Your task to perform on an android device: Clear all items from cart on bestbuy.com. Search for "logitech g903" on bestbuy.com, select the first entry, and add it to the cart. Image 0: 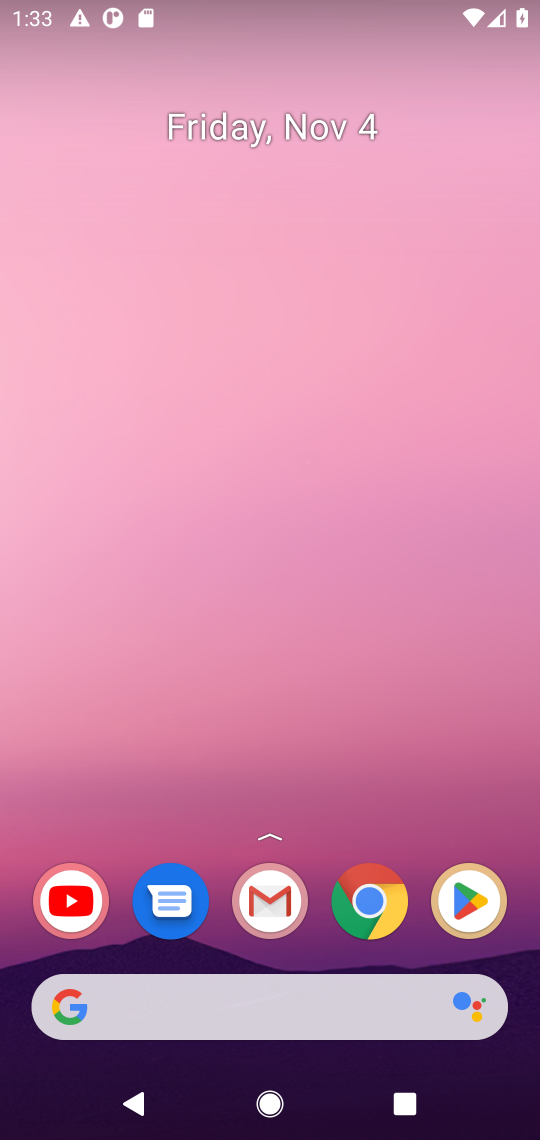
Step 0: click (370, 898)
Your task to perform on an android device: Clear all items from cart on bestbuy.com. Search for "logitech g903" on bestbuy.com, select the first entry, and add it to the cart. Image 1: 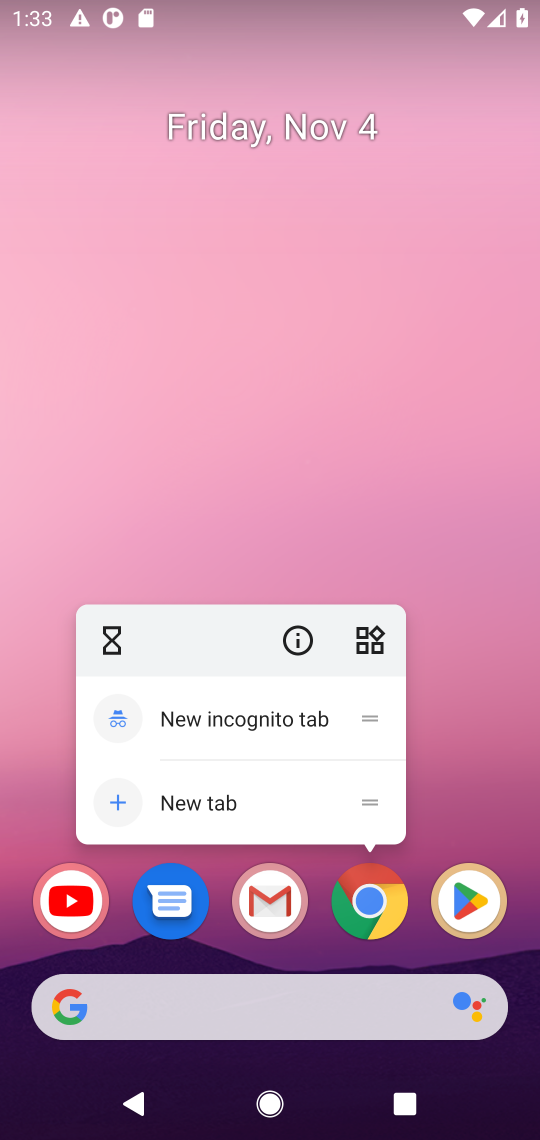
Step 1: click (370, 898)
Your task to perform on an android device: Clear all items from cart on bestbuy.com. Search for "logitech g903" on bestbuy.com, select the first entry, and add it to the cart. Image 2: 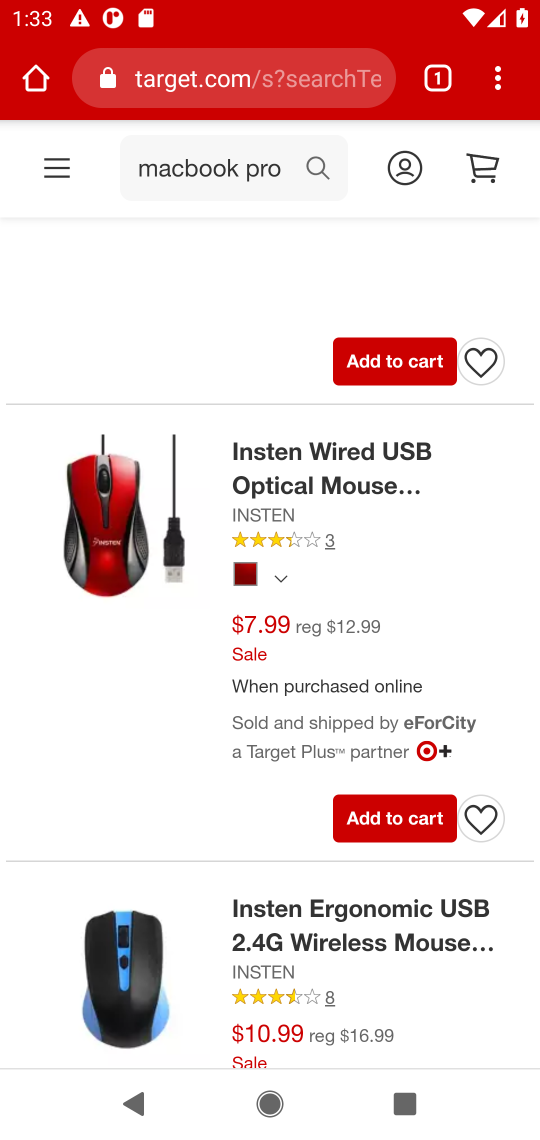
Step 2: click (287, 83)
Your task to perform on an android device: Clear all items from cart on bestbuy.com. Search for "logitech g903" on bestbuy.com, select the first entry, and add it to the cart. Image 3: 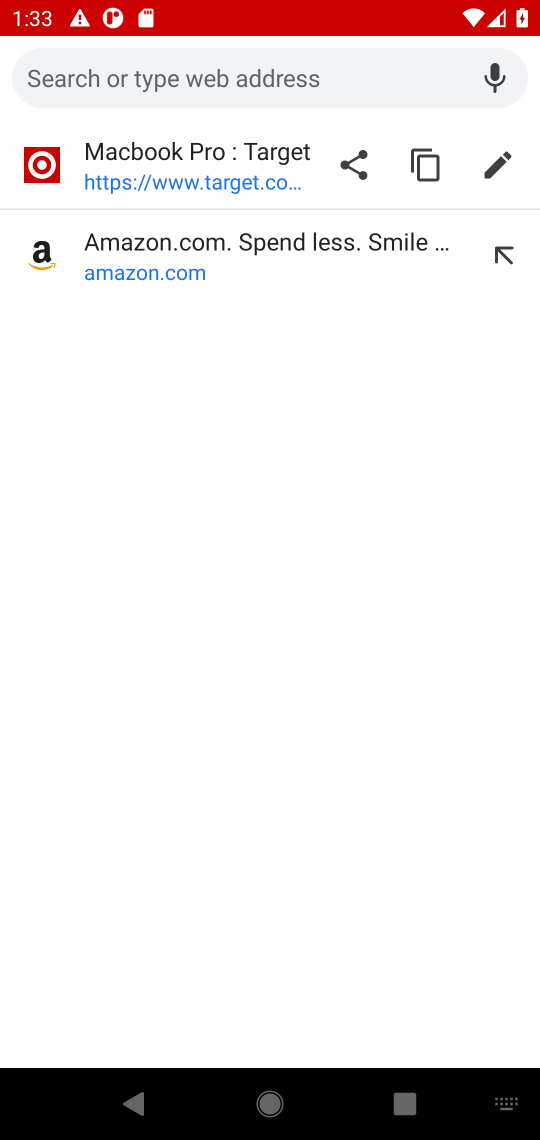
Step 3: type "bestbuy.com"
Your task to perform on an android device: Clear all items from cart on bestbuy.com. Search for "logitech g903" on bestbuy.com, select the first entry, and add it to the cart. Image 4: 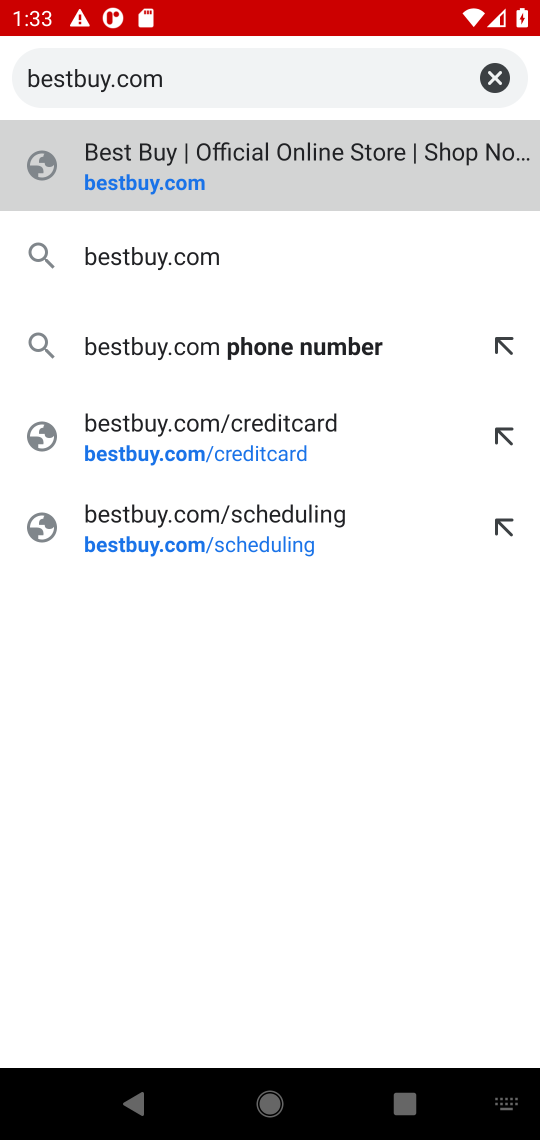
Step 4: press enter
Your task to perform on an android device: Clear all items from cart on bestbuy.com. Search for "logitech g903" on bestbuy.com, select the first entry, and add it to the cart. Image 5: 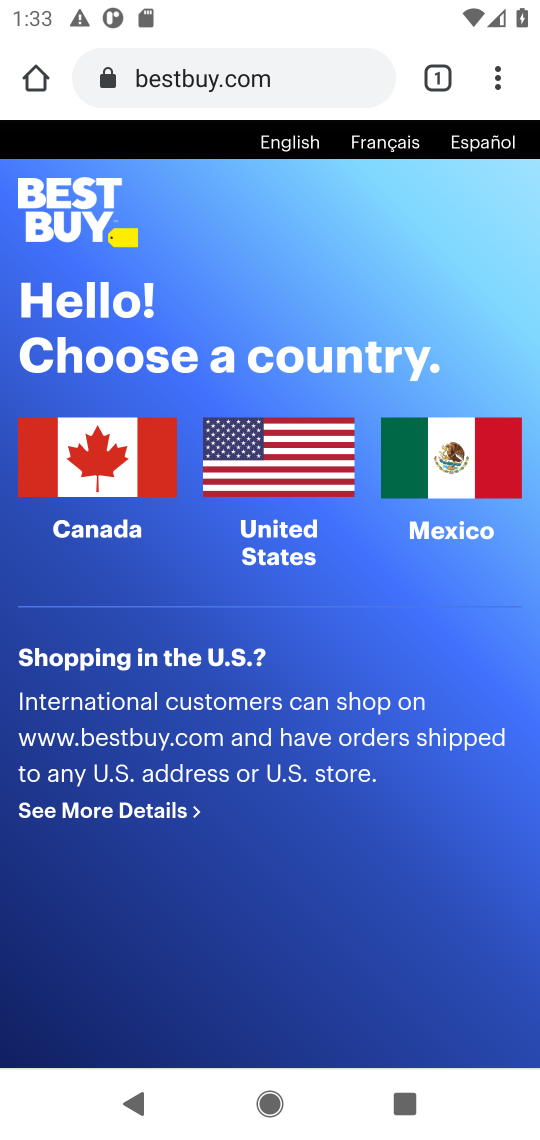
Step 5: click (328, 464)
Your task to perform on an android device: Clear all items from cart on bestbuy.com. Search for "logitech g903" on bestbuy.com, select the first entry, and add it to the cart. Image 6: 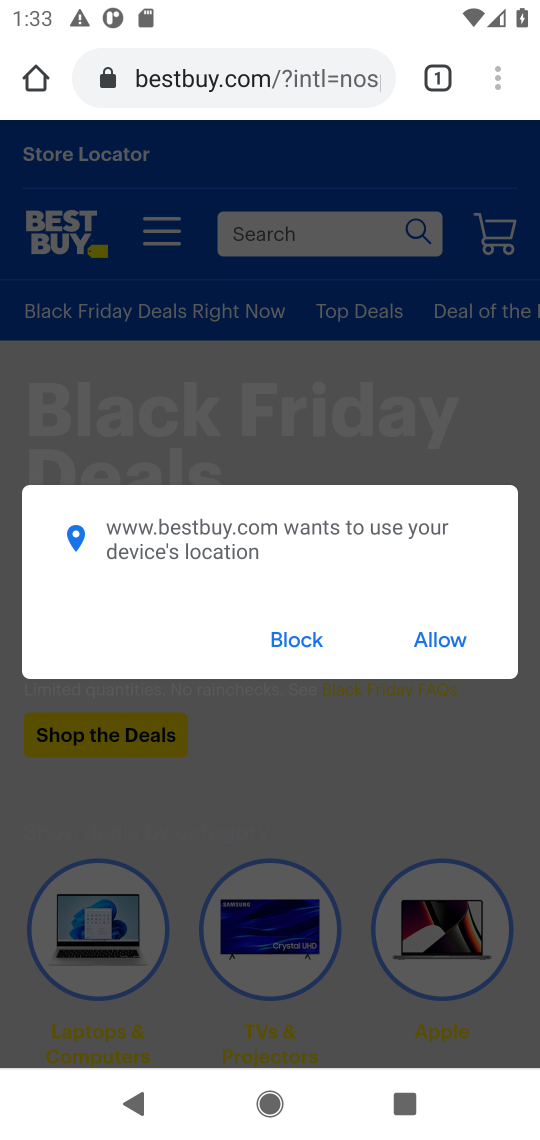
Step 6: click (295, 645)
Your task to perform on an android device: Clear all items from cart on bestbuy.com. Search for "logitech g903" on bestbuy.com, select the first entry, and add it to the cart. Image 7: 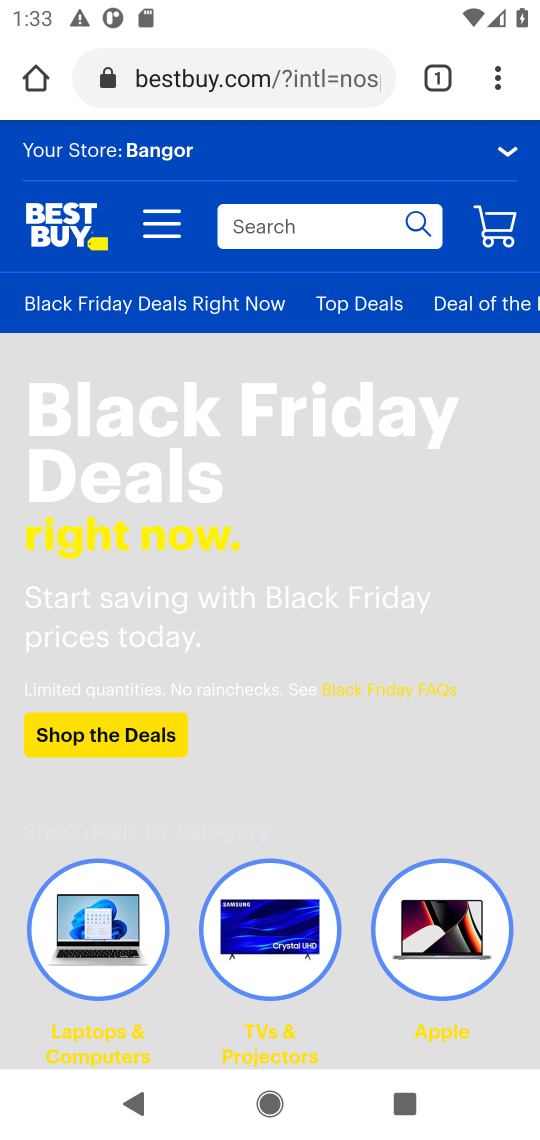
Step 7: click (504, 241)
Your task to perform on an android device: Clear all items from cart on bestbuy.com. Search for "logitech g903" on bestbuy.com, select the first entry, and add it to the cart. Image 8: 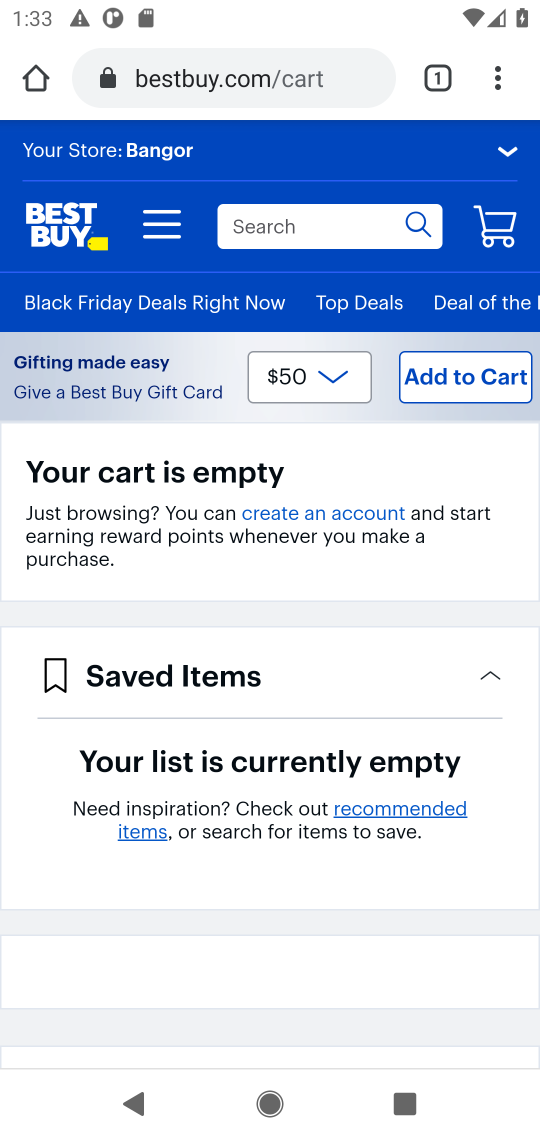
Step 8: click (284, 217)
Your task to perform on an android device: Clear all items from cart on bestbuy.com. Search for "logitech g903" on bestbuy.com, select the first entry, and add it to the cart. Image 9: 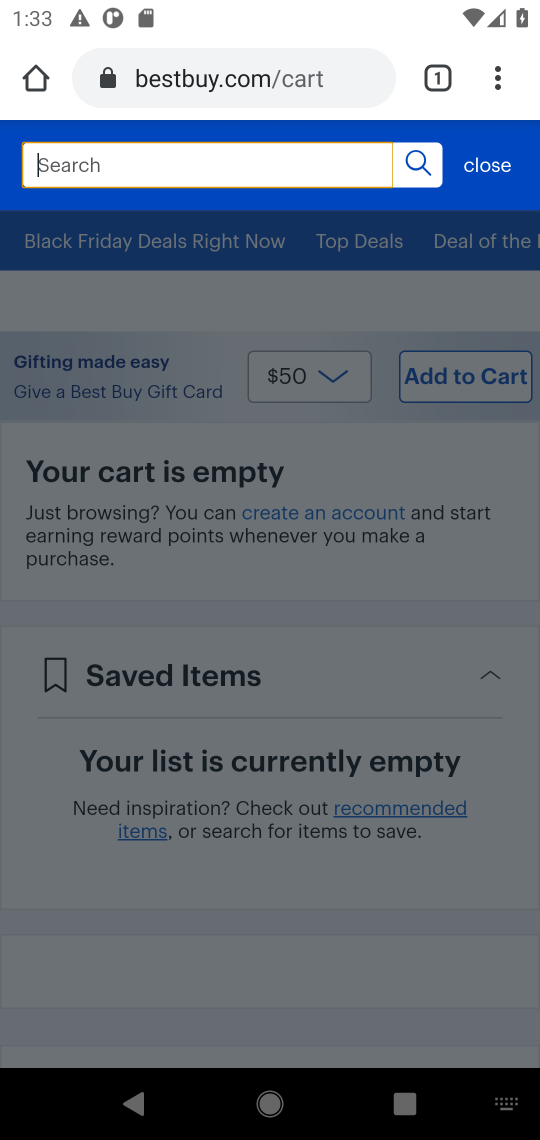
Step 9: type "logitech g903"
Your task to perform on an android device: Clear all items from cart on bestbuy.com. Search for "logitech g903" on bestbuy.com, select the first entry, and add it to the cart. Image 10: 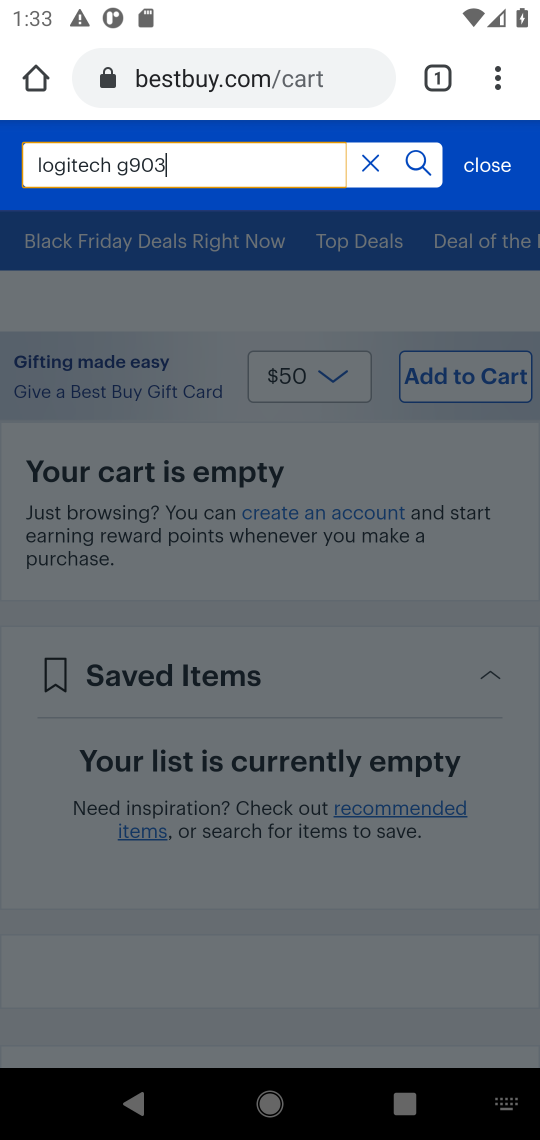
Step 10: press enter
Your task to perform on an android device: Clear all items from cart on bestbuy.com. Search for "logitech g903" on bestbuy.com, select the first entry, and add it to the cart. Image 11: 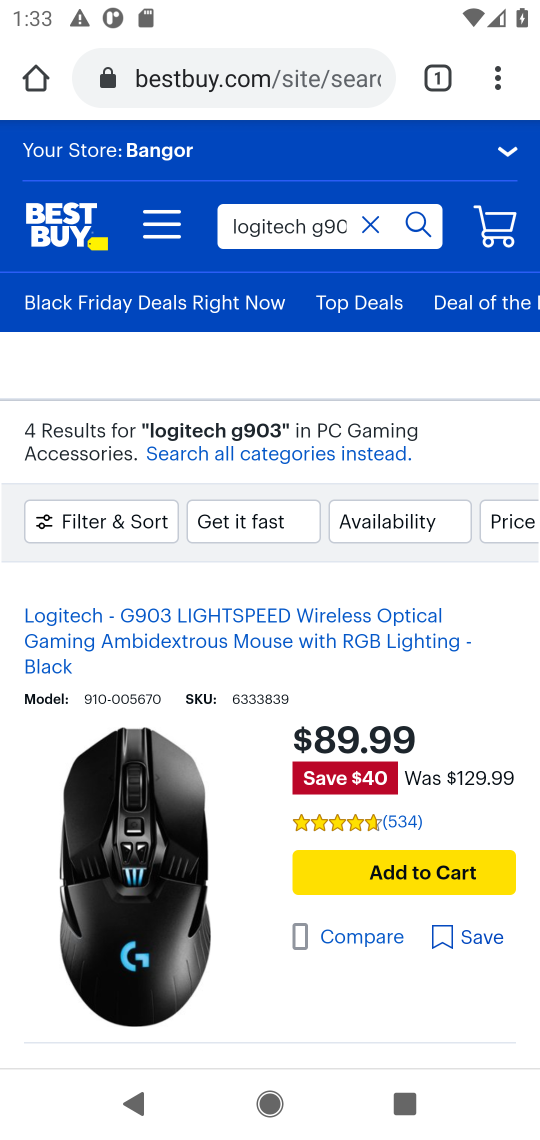
Step 11: click (148, 785)
Your task to perform on an android device: Clear all items from cart on bestbuy.com. Search for "logitech g903" on bestbuy.com, select the first entry, and add it to the cart. Image 12: 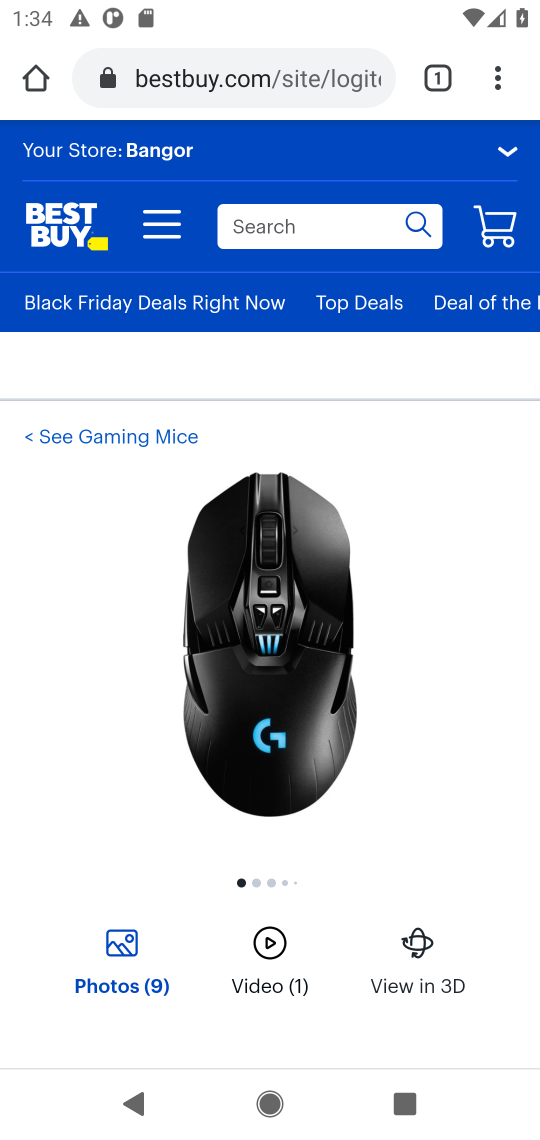
Step 12: drag from (365, 734) to (333, 137)
Your task to perform on an android device: Clear all items from cart on bestbuy.com. Search for "logitech g903" on bestbuy.com, select the first entry, and add it to the cart. Image 13: 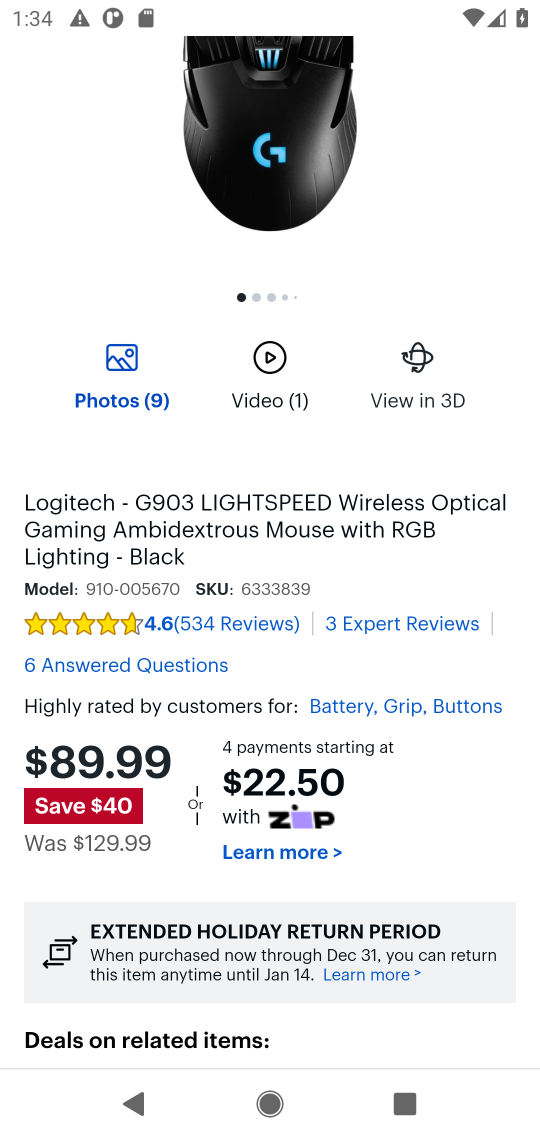
Step 13: drag from (436, 788) to (403, 269)
Your task to perform on an android device: Clear all items from cart on bestbuy.com. Search for "logitech g903" on bestbuy.com, select the first entry, and add it to the cart. Image 14: 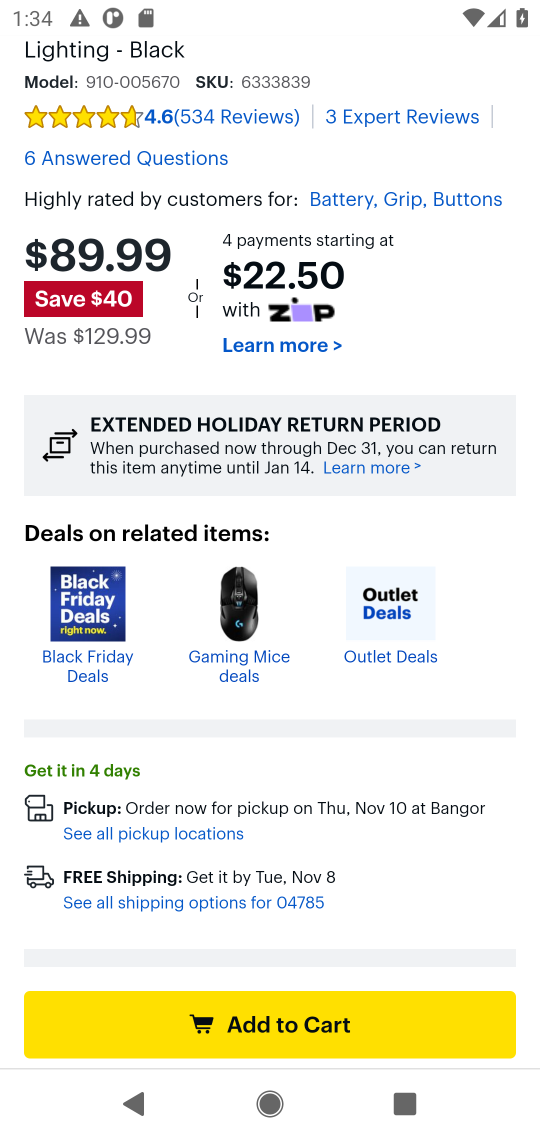
Step 14: click (369, 1023)
Your task to perform on an android device: Clear all items from cart on bestbuy.com. Search for "logitech g903" on bestbuy.com, select the first entry, and add it to the cart. Image 15: 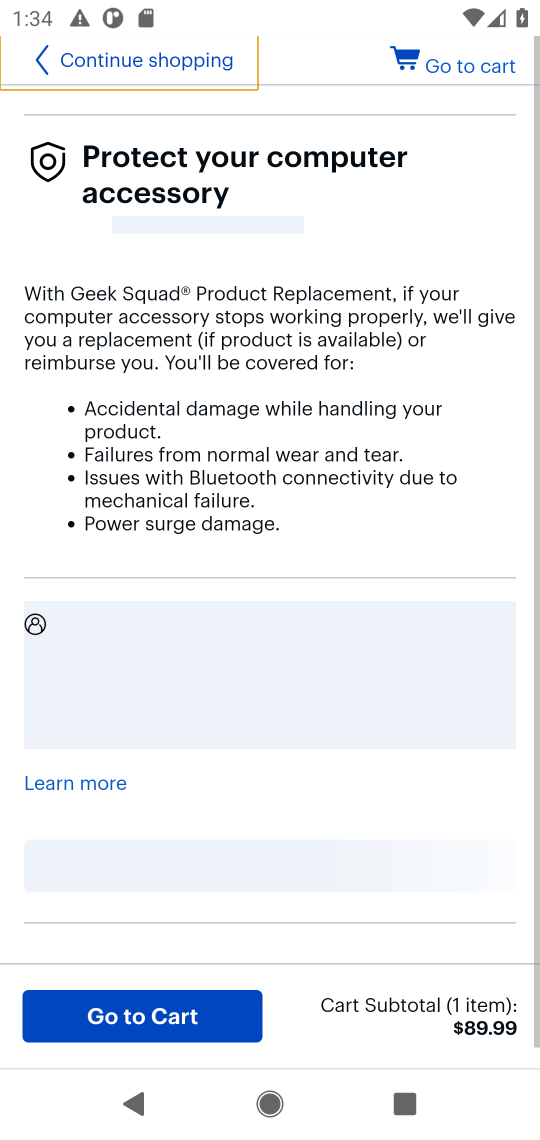
Step 15: task complete